Your task to perform on an android device: choose inbox layout in the gmail app Image 0: 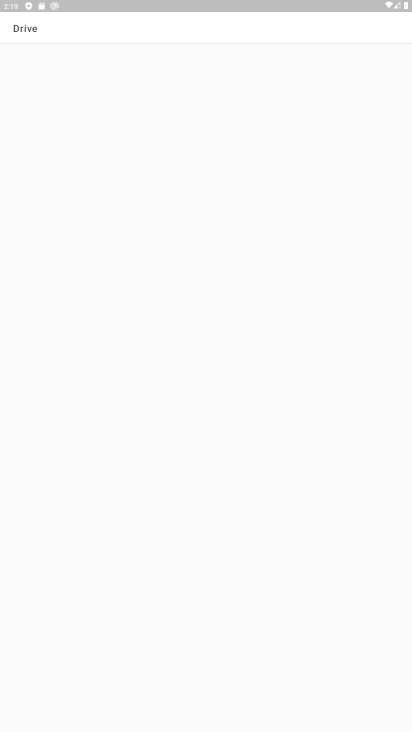
Step 0: press home button
Your task to perform on an android device: choose inbox layout in the gmail app Image 1: 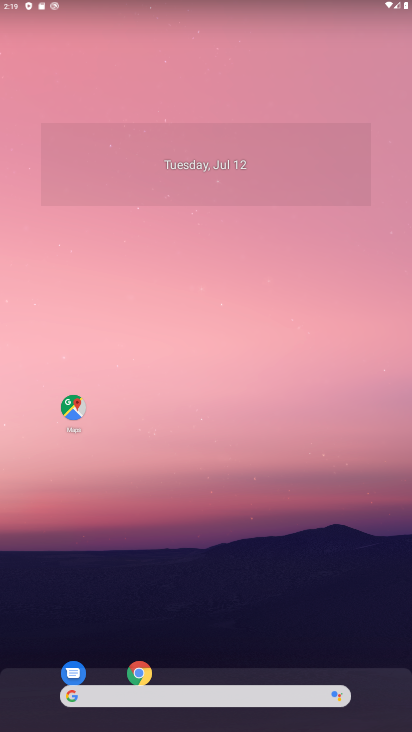
Step 1: drag from (38, 719) to (304, 8)
Your task to perform on an android device: choose inbox layout in the gmail app Image 2: 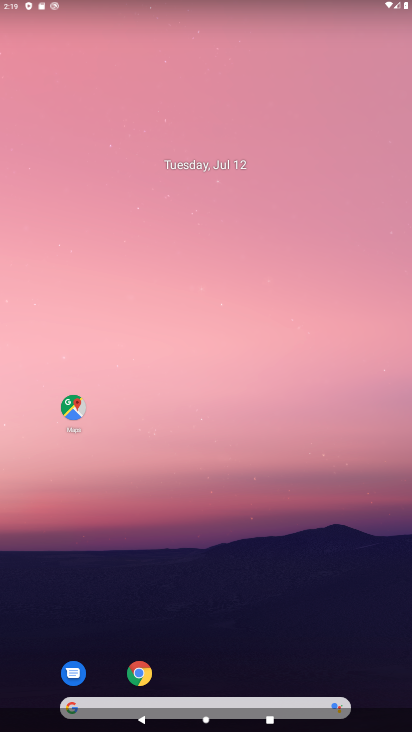
Step 2: drag from (37, 652) to (197, 102)
Your task to perform on an android device: choose inbox layout in the gmail app Image 3: 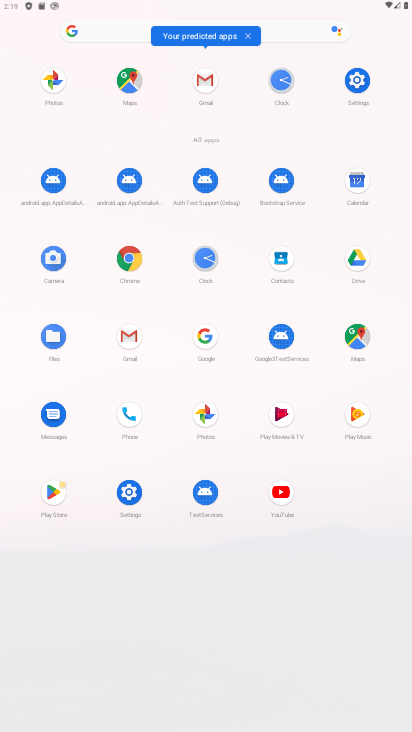
Step 3: click (194, 80)
Your task to perform on an android device: choose inbox layout in the gmail app Image 4: 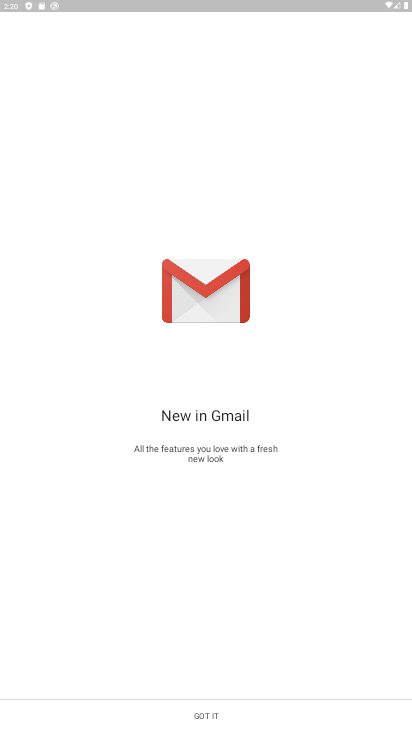
Step 4: click (200, 712)
Your task to perform on an android device: choose inbox layout in the gmail app Image 5: 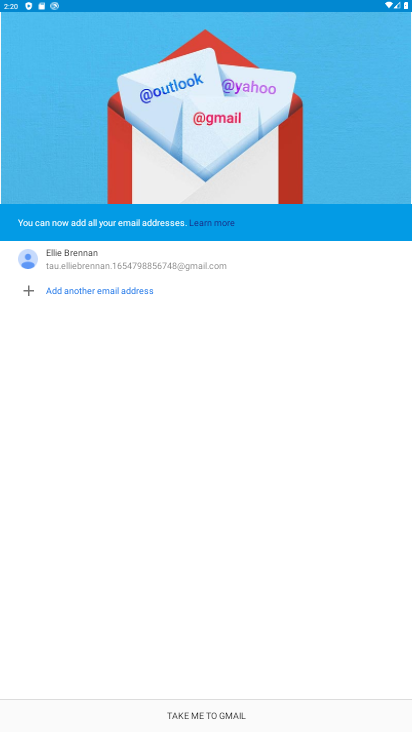
Step 5: click (205, 712)
Your task to perform on an android device: choose inbox layout in the gmail app Image 6: 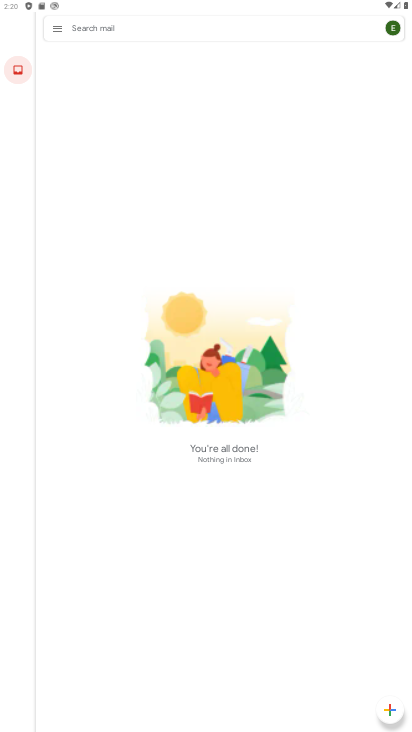
Step 6: click (66, 7)
Your task to perform on an android device: choose inbox layout in the gmail app Image 7: 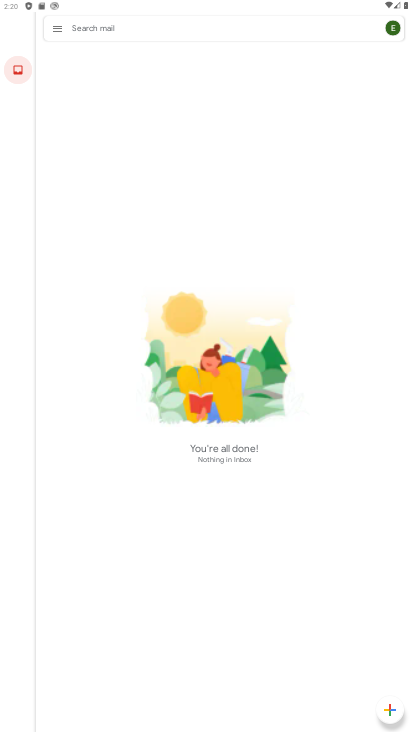
Step 7: click (49, 28)
Your task to perform on an android device: choose inbox layout in the gmail app Image 8: 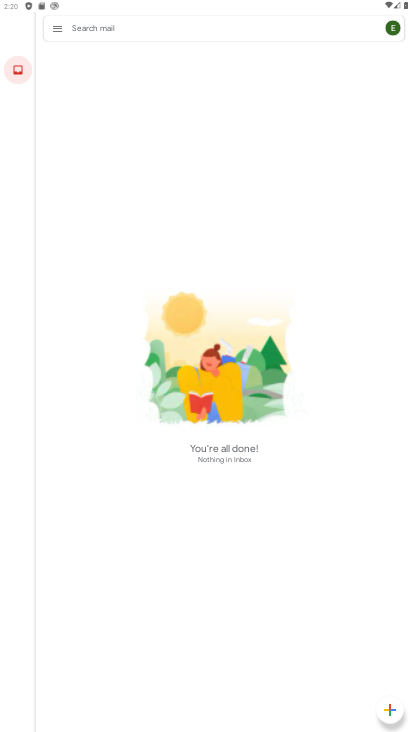
Step 8: task complete